Your task to perform on an android device: Open Google Chrome Image 0: 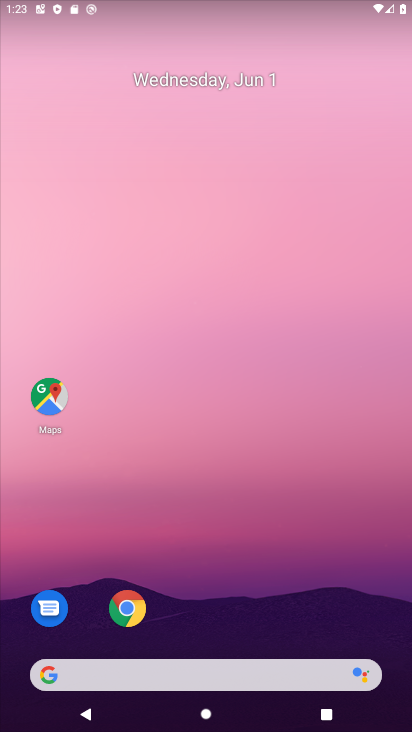
Step 0: click (123, 616)
Your task to perform on an android device: Open Google Chrome Image 1: 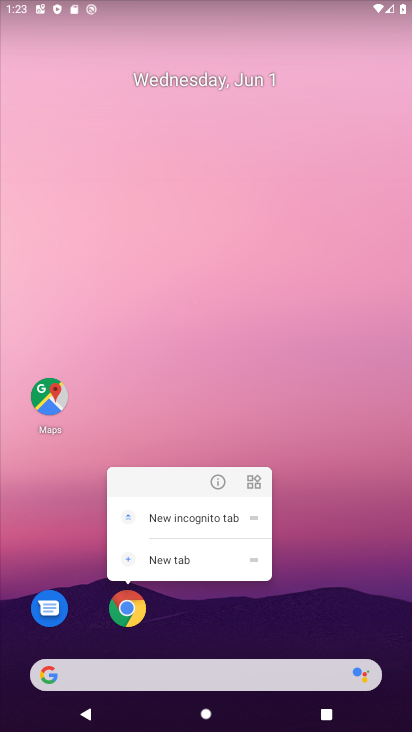
Step 1: click (131, 606)
Your task to perform on an android device: Open Google Chrome Image 2: 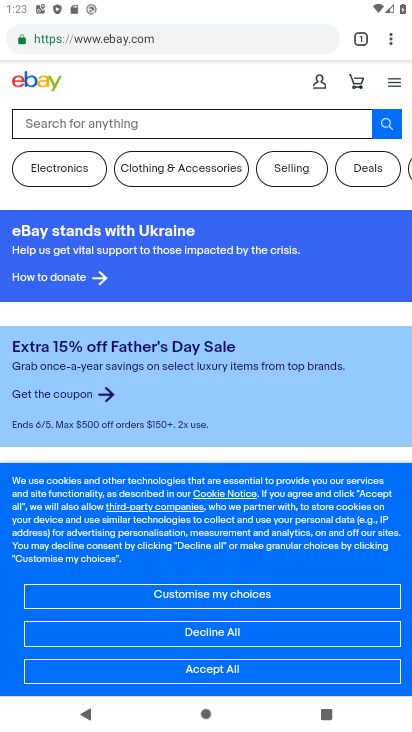
Step 2: task complete